Your task to perform on an android device: Go to display settings Image 0: 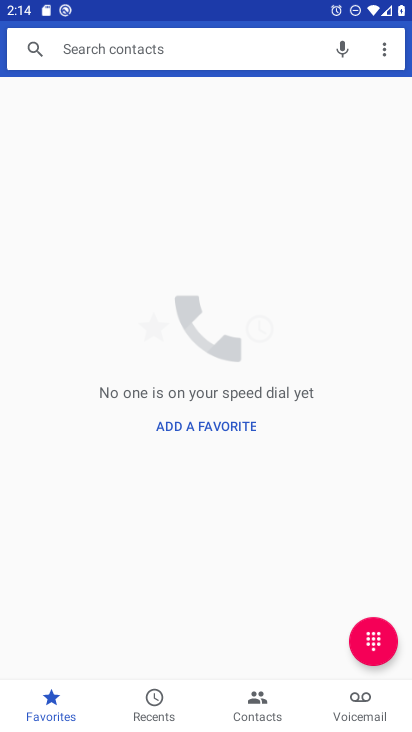
Step 0: press home button
Your task to perform on an android device: Go to display settings Image 1: 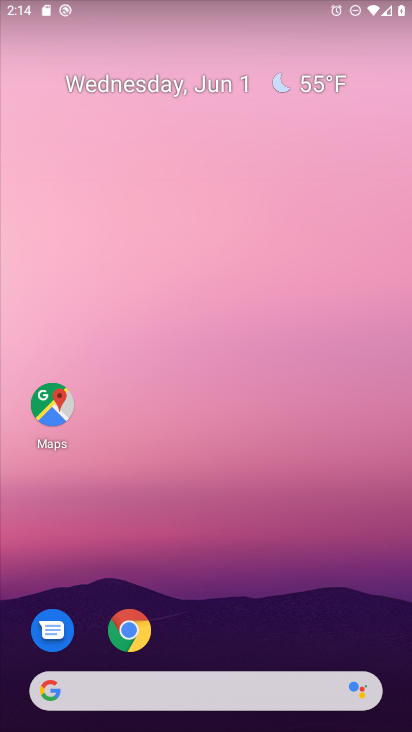
Step 1: drag from (205, 686) to (231, 4)
Your task to perform on an android device: Go to display settings Image 2: 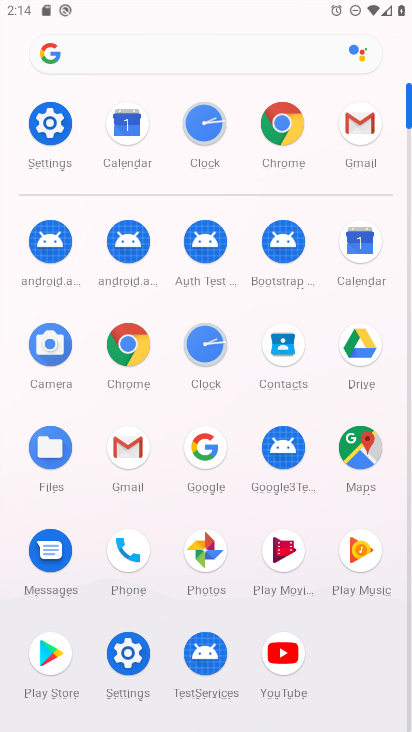
Step 2: click (57, 119)
Your task to perform on an android device: Go to display settings Image 3: 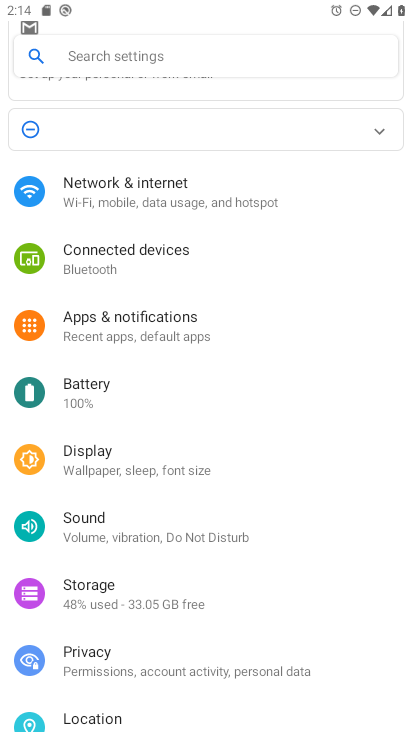
Step 3: click (103, 465)
Your task to perform on an android device: Go to display settings Image 4: 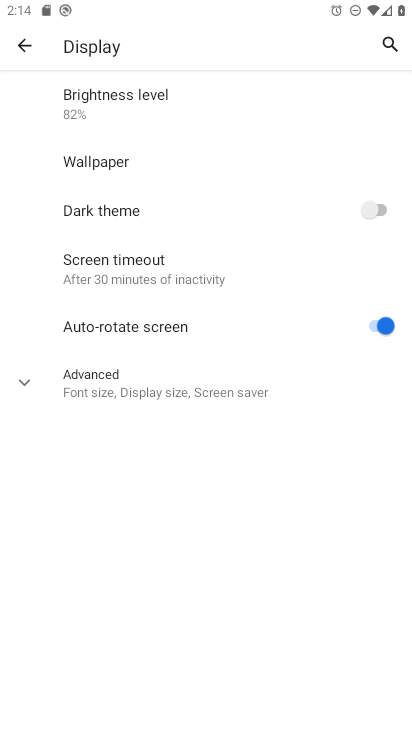
Step 4: task complete